Your task to perform on an android device: turn off picture-in-picture Image 0: 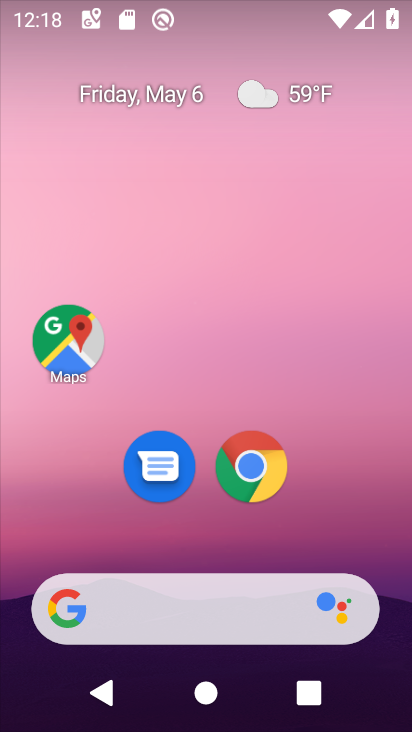
Step 0: click (262, 474)
Your task to perform on an android device: turn off picture-in-picture Image 1: 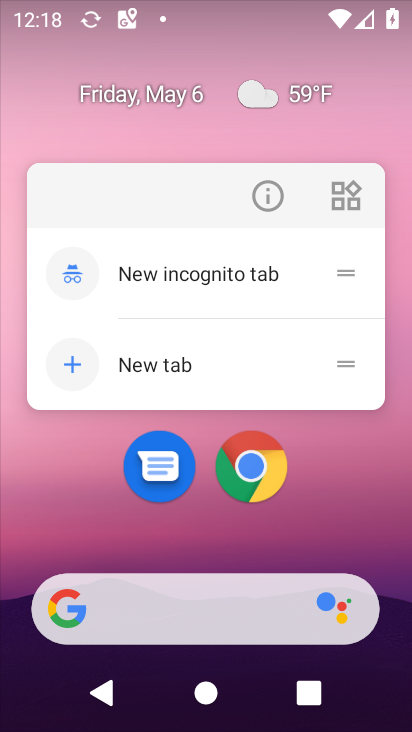
Step 1: click (277, 194)
Your task to perform on an android device: turn off picture-in-picture Image 2: 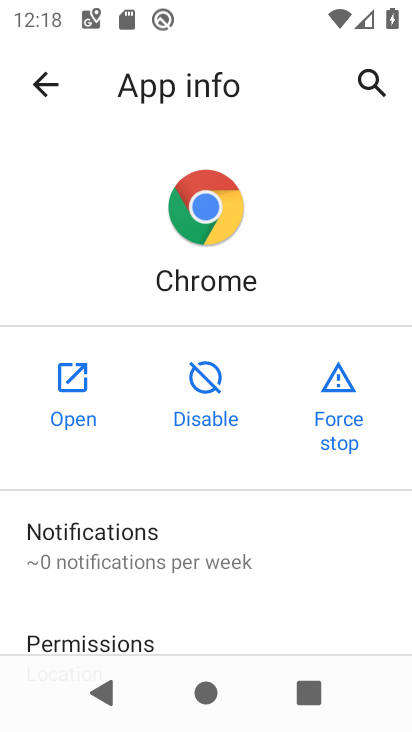
Step 2: drag from (263, 625) to (197, 176)
Your task to perform on an android device: turn off picture-in-picture Image 3: 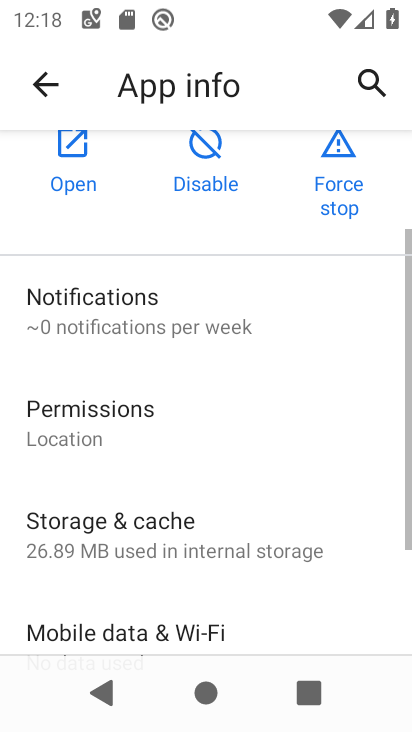
Step 3: drag from (260, 608) to (264, 325)
Your task to perform on an android device: turn off picture-in-picture Image 4: 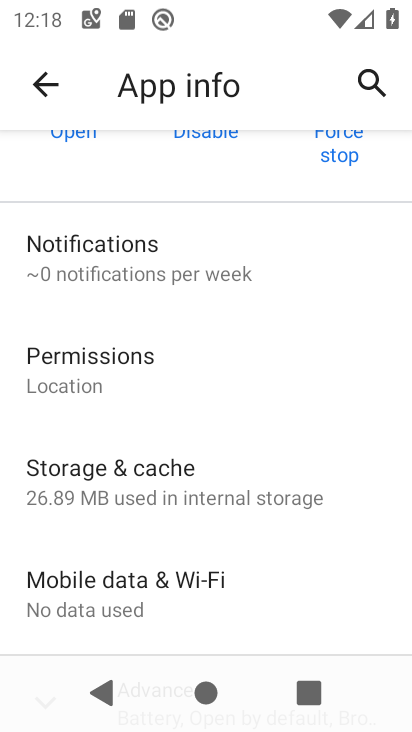
Step 4: drag from (304, 562) to (280, 229)
Your task to perform on an android device: turn off picture-in-picture Image 5: 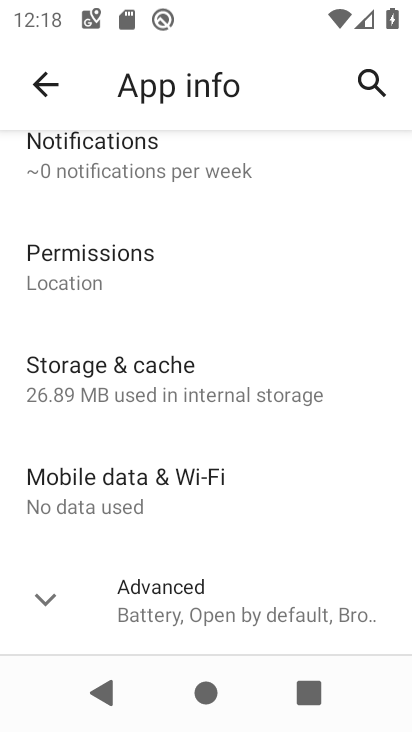
Step 5: drag from (268, 559) to (257, 272)
Your task to perform on an android device: turn off picture-in-picture Image 6: 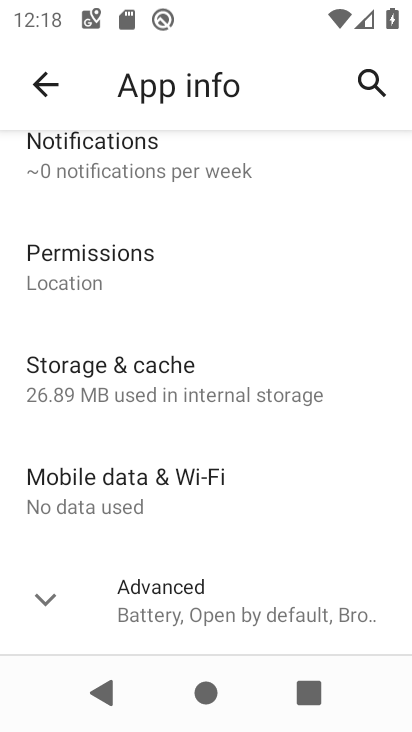
Step 6: click (289, 587)
Your task to perform on an android device: turn off picture-in-picture Image 7: 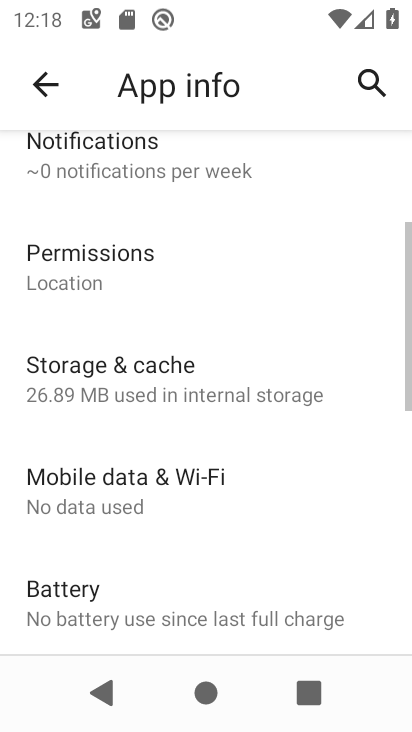
Step 7: drag from (289, 587) to (262, 286)
Your task to perform on an android device: turn off picture-in-picture Image 8: 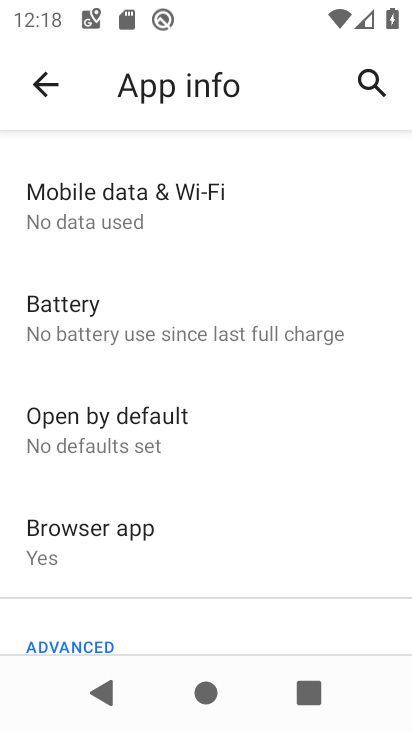
Step 8: drag from (261, 576) to (250, 363)
Your task to perform on an android device: turn off picture-in-picture Image 9: 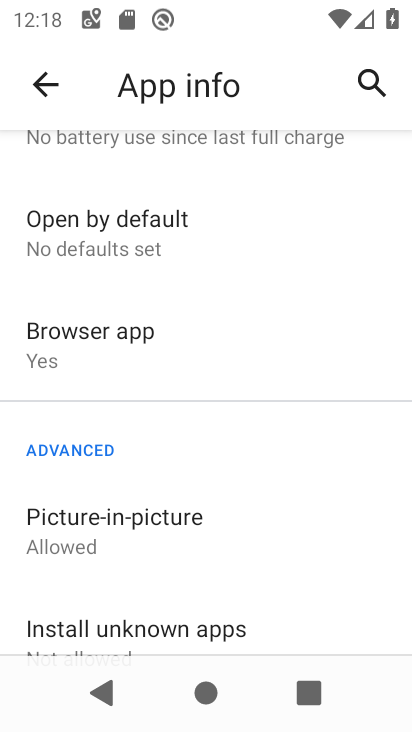
Step 9: click (213, 526)
Your task to perform on an android device: turn off picture-in-picture Image 10: 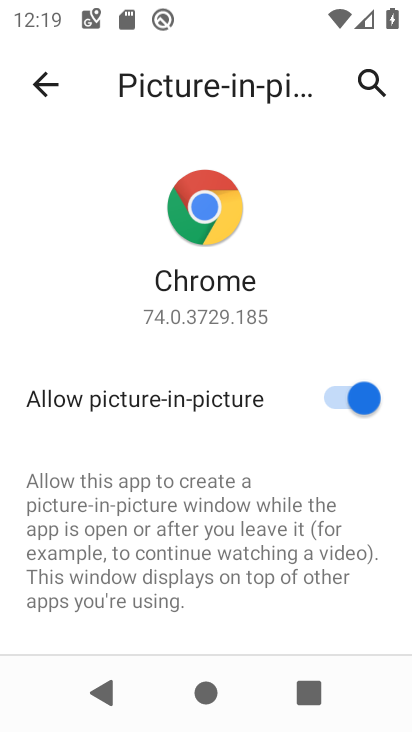
Step 10: click (347, 384)
Your task to perform on an android device: turn off picture-in-picture Image 11: 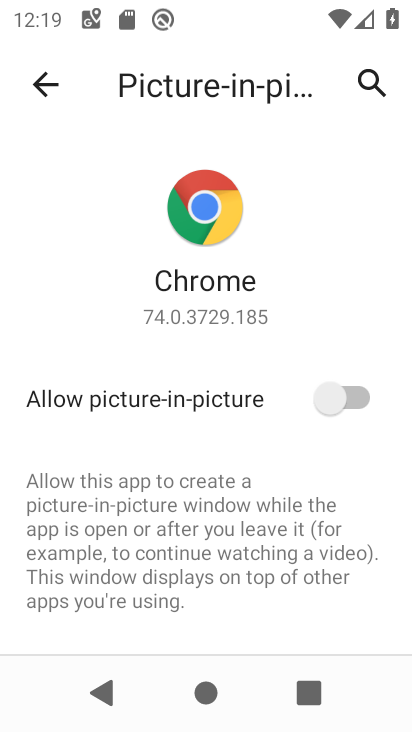
Step 11: task complete